Your task to perform on an android device: Open the Play Movies app and select the watchlist tab. Image 0: 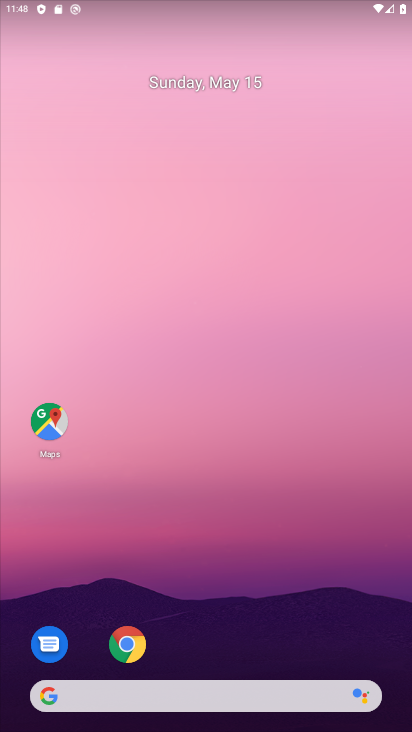
Step 0: drag from (233, 625) to (169, 2)
Your task to perform on an android device: Open the Play Movies app and select the watchlist tab. Image 1: 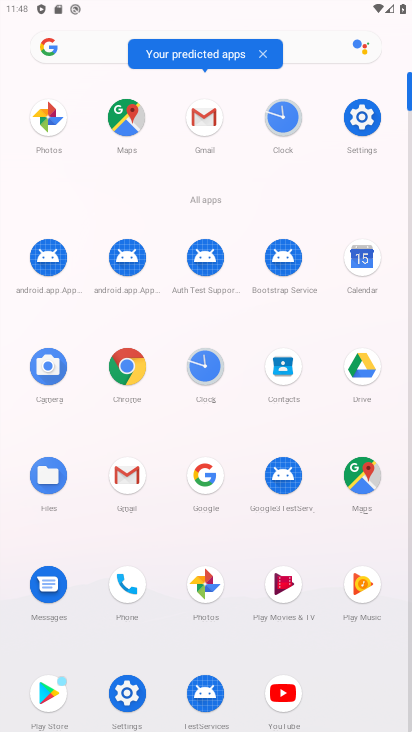
Step 1: click (287, 591)
Your task to perform on an android device: Open the Play Movies app and select the watchlist tab. Image 2: 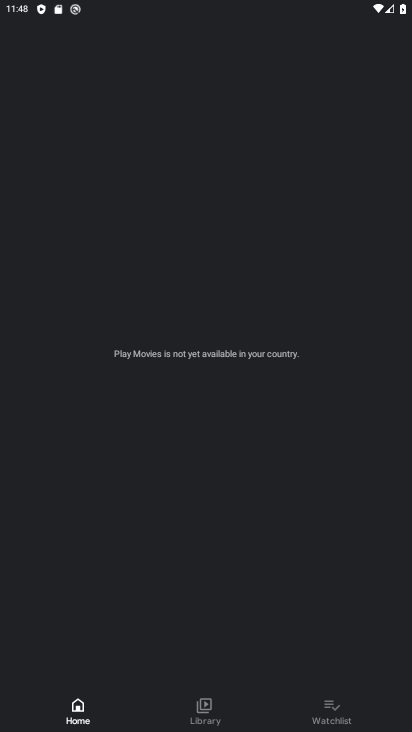
Step 2: click (346, 709)
Your task to perform on an android device: Open the Play Movies app and select the watchlist tab. Image 3: 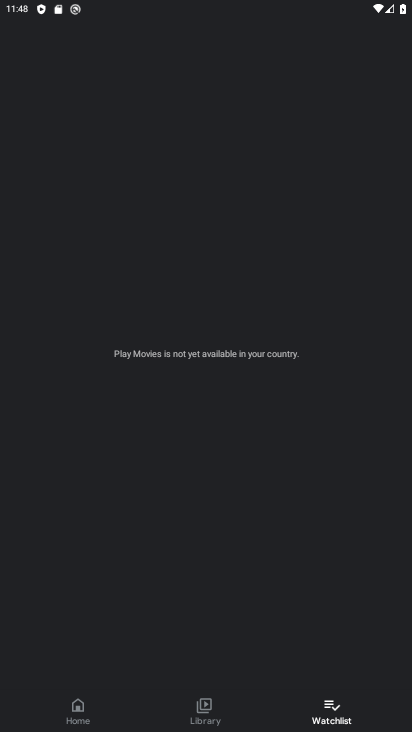
Step 3: task complete